Your task to perform on an android device: Add apple airpods to the cart on amazon Image 0: 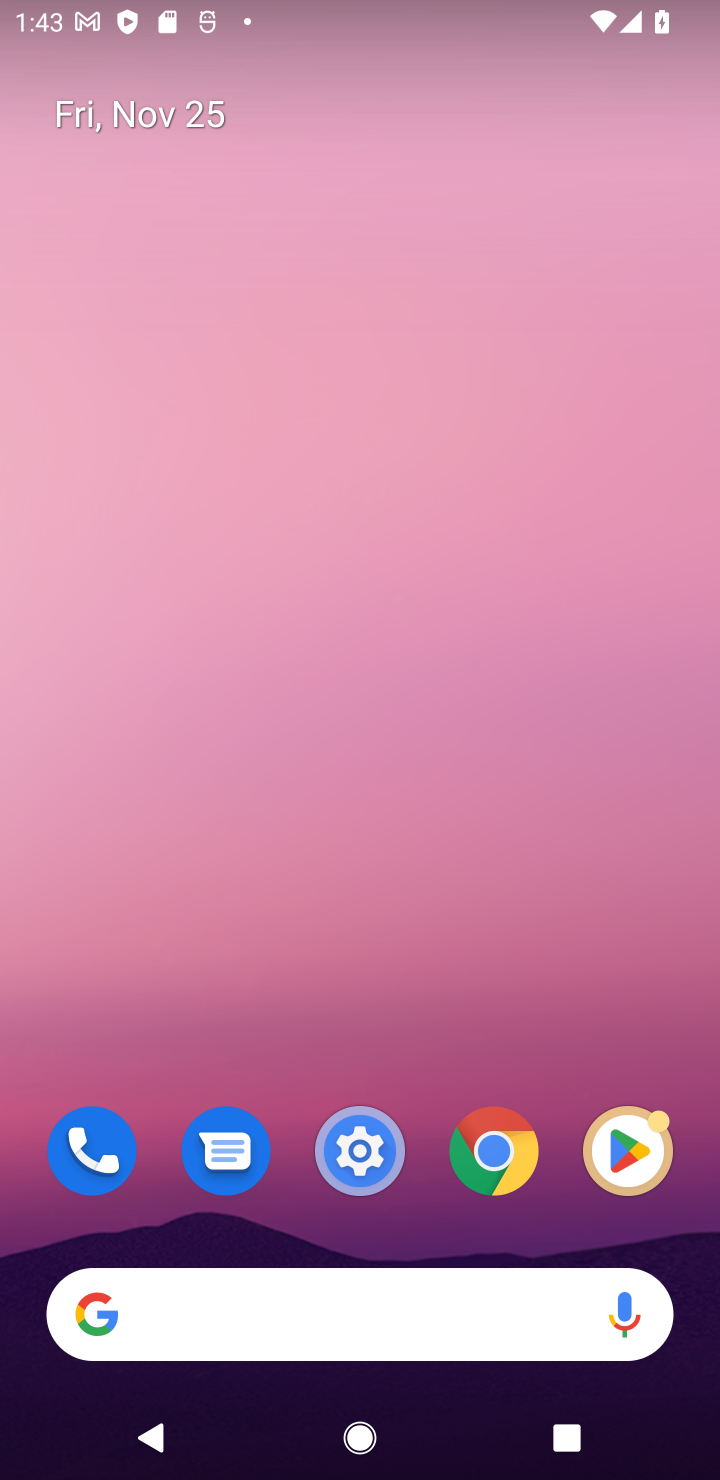
Step 0: click (467, 1307)
Your task to perform on an android device: Add apple airpods to the cart on amazon Image 1: 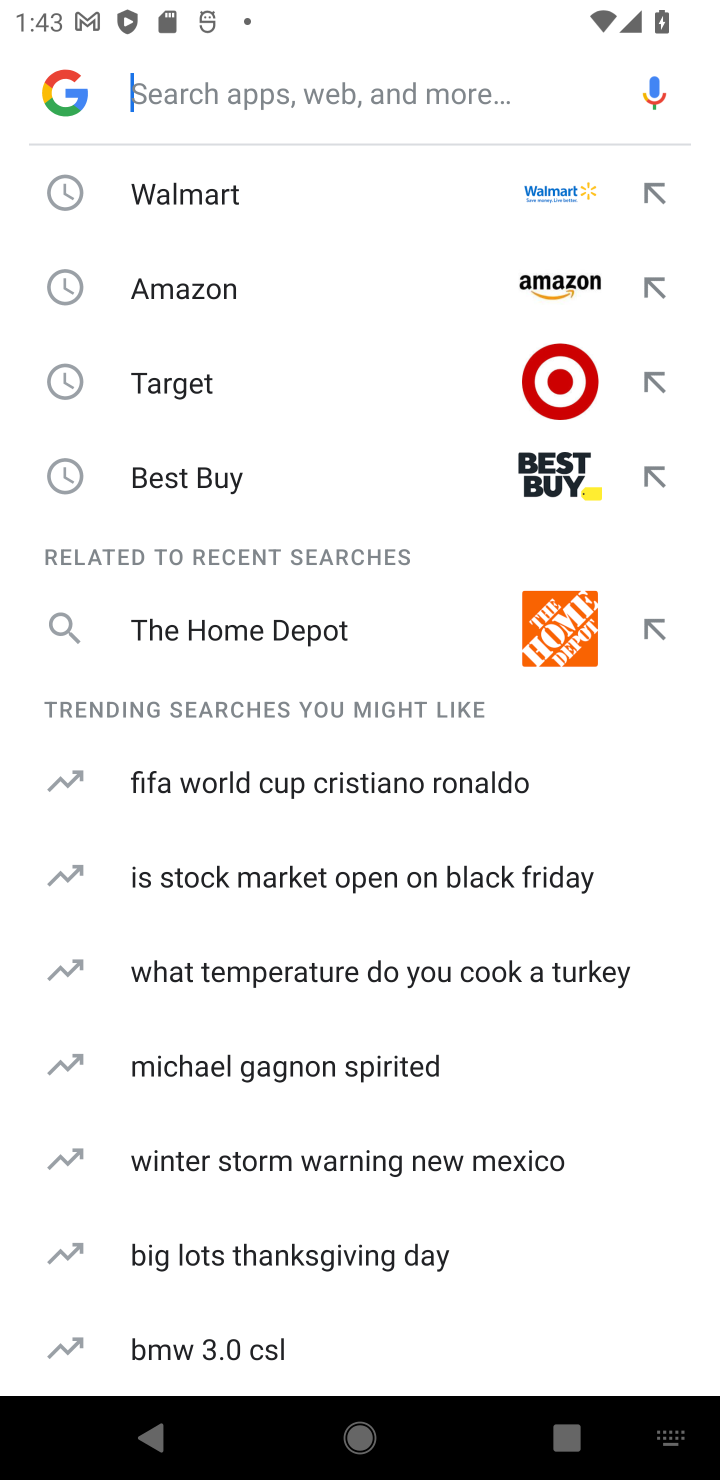
Step 1: type "amazon "
Your task to perform on an android device: Add apple airpods to the cart on amazon Image 2: 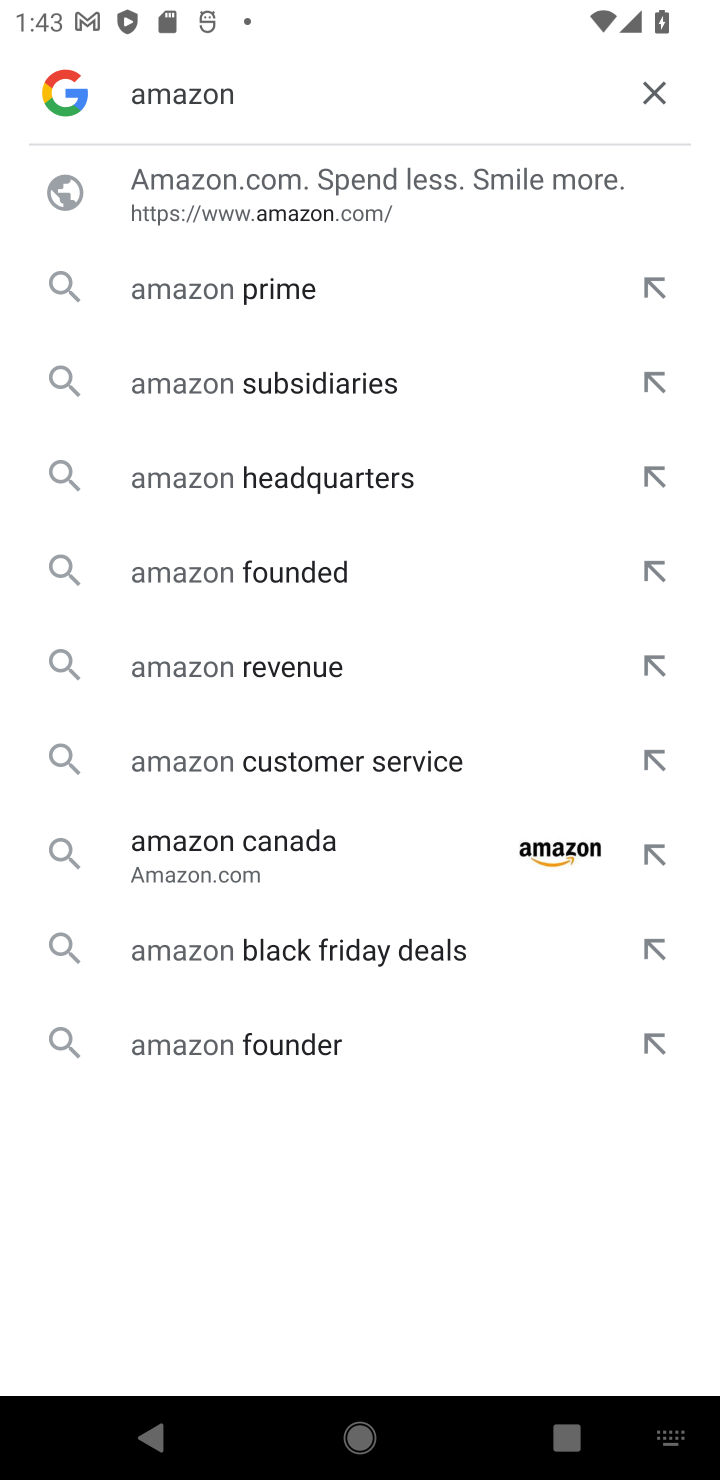
Step 2: click (304, 181)
Your task to perform on an android device: Add apple airpods to the cart on amazon Image 3: 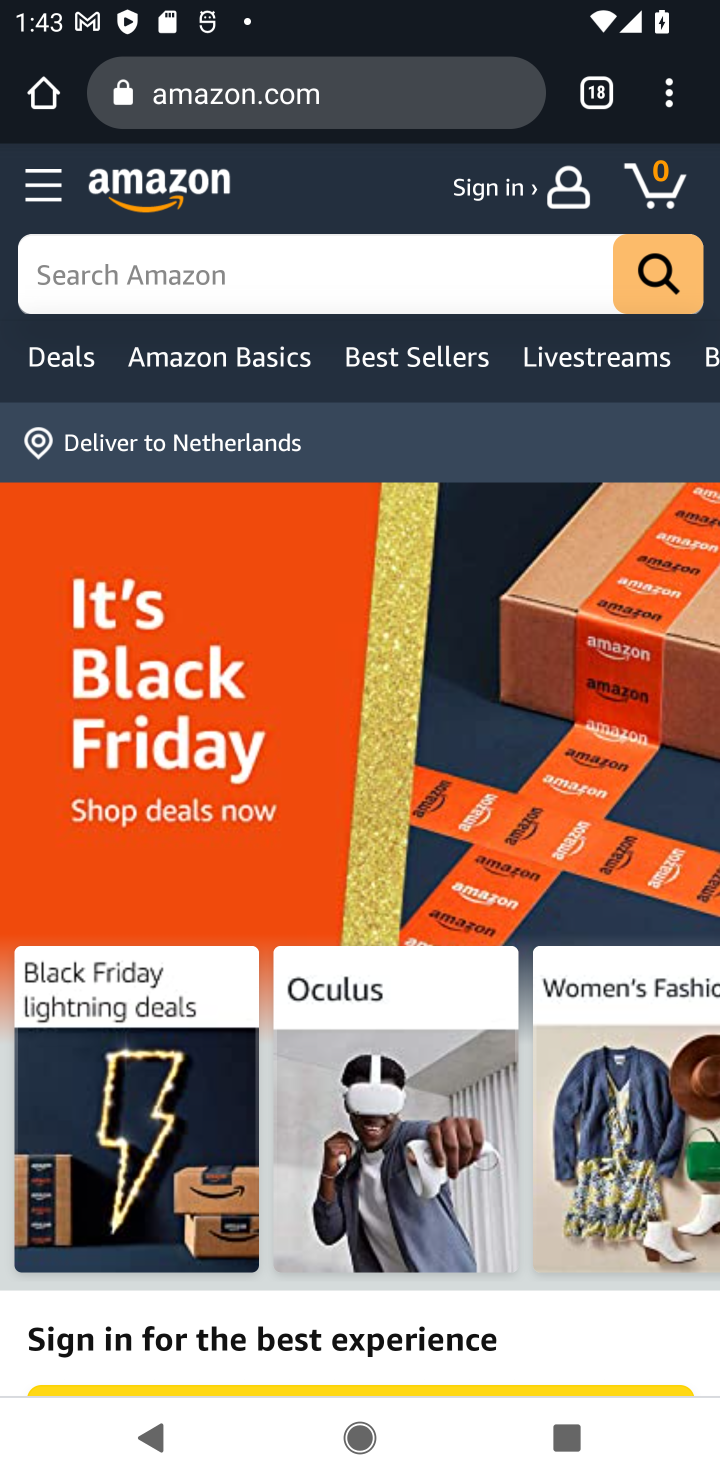
Step 3: click (341, 273)
Your task to perform on an android device: Add apple airpods to the cart on amazon Image 4: 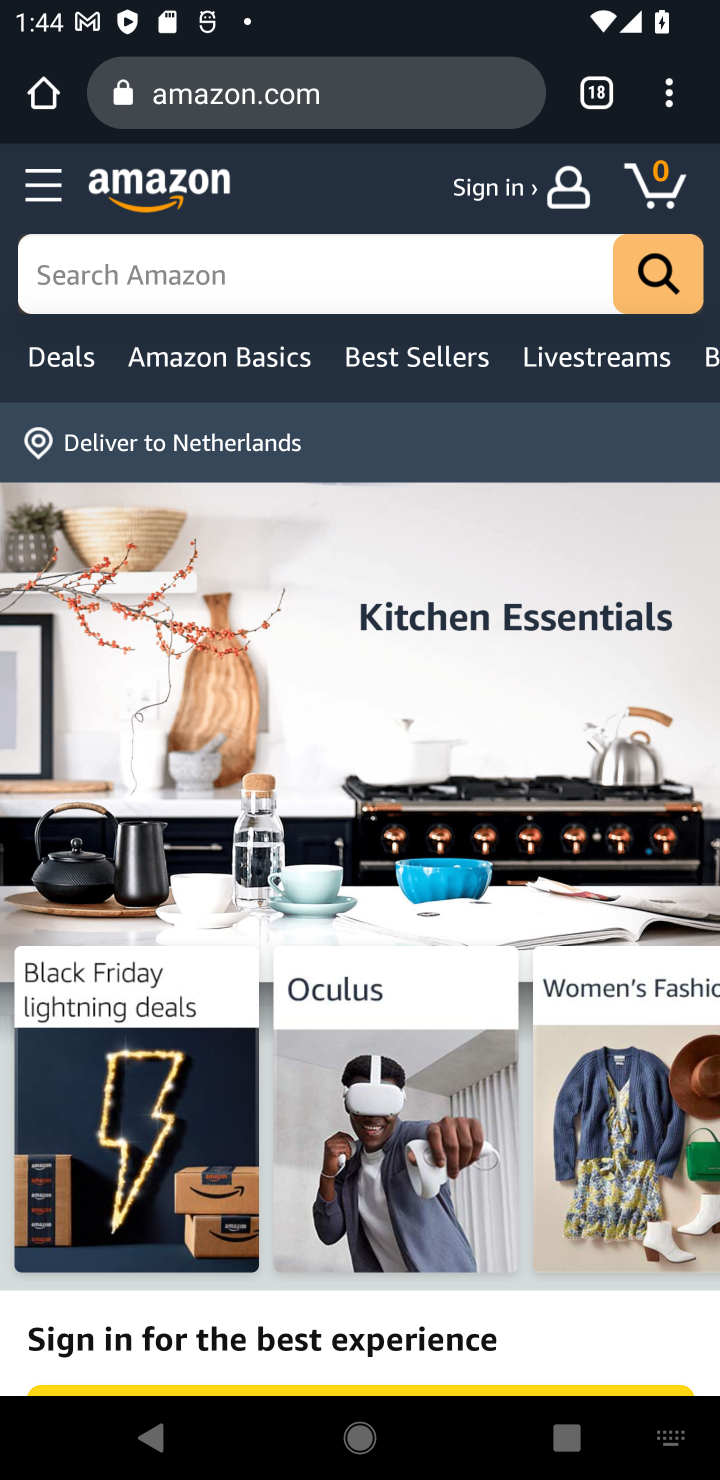
Step 4: type "apple airpod"
Your task to perform on an android device: Add apple airpods to the cart on amazon Image 5: 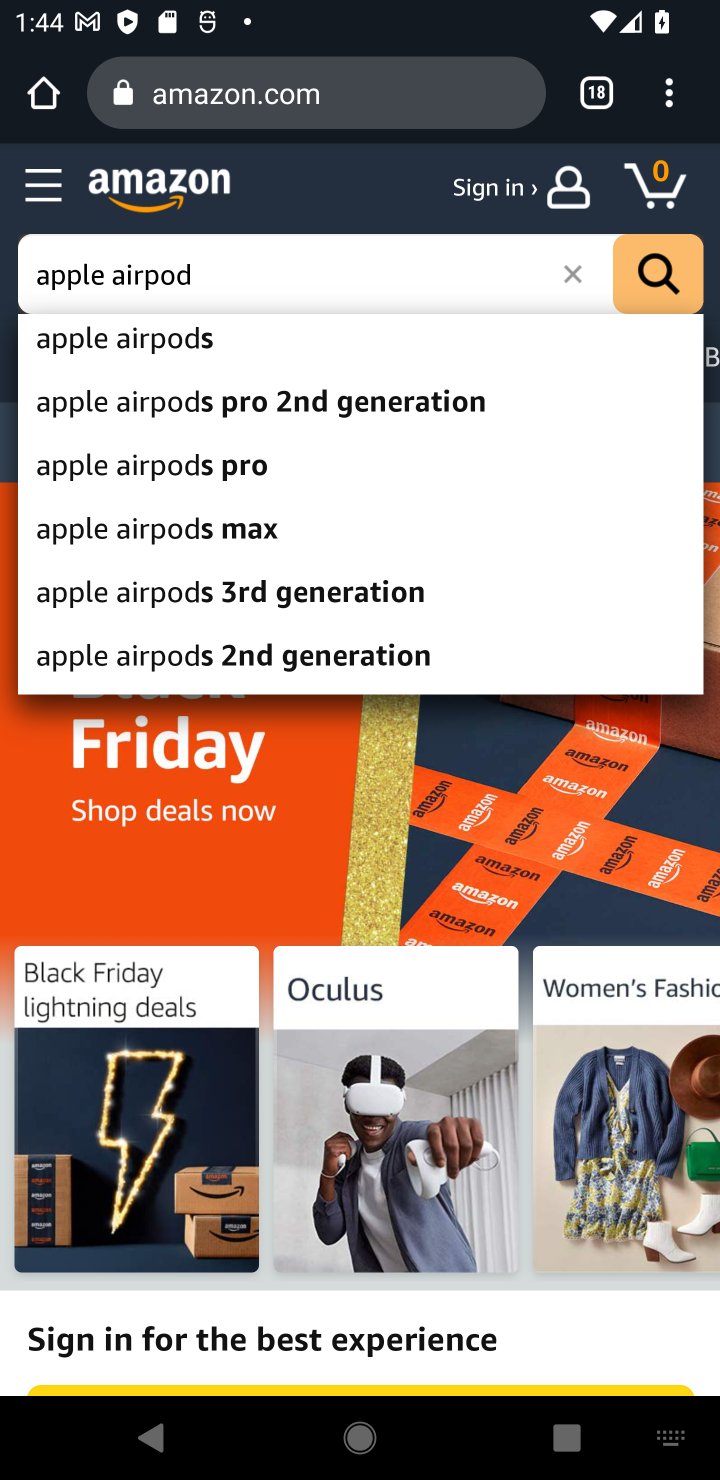
Step 5: click (264, 337)
Your task to perform on an android device: Add apple airpods to the cart on amazon Image 6: 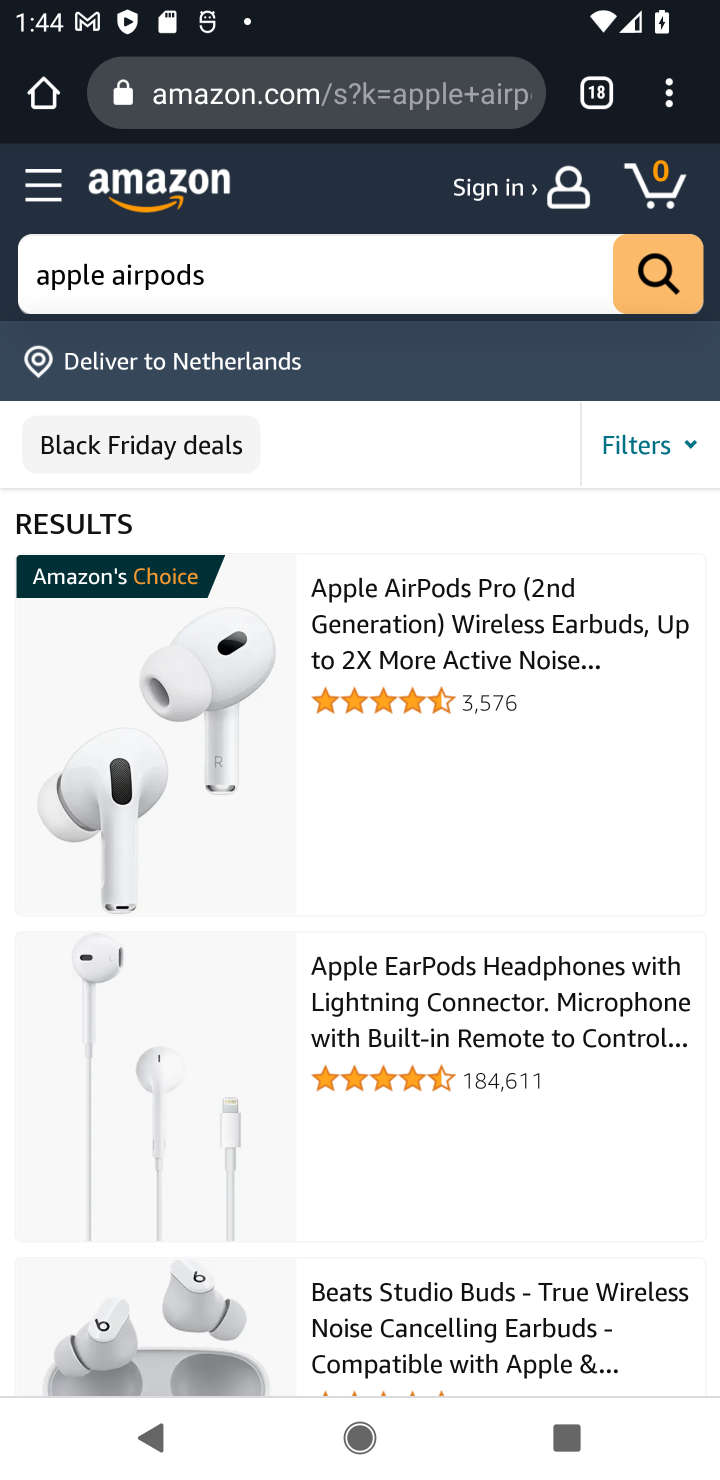
Step 6: click (406, 604)
Your task to perform on an android device: Add apple airpods to the cart on amazon Image 7: 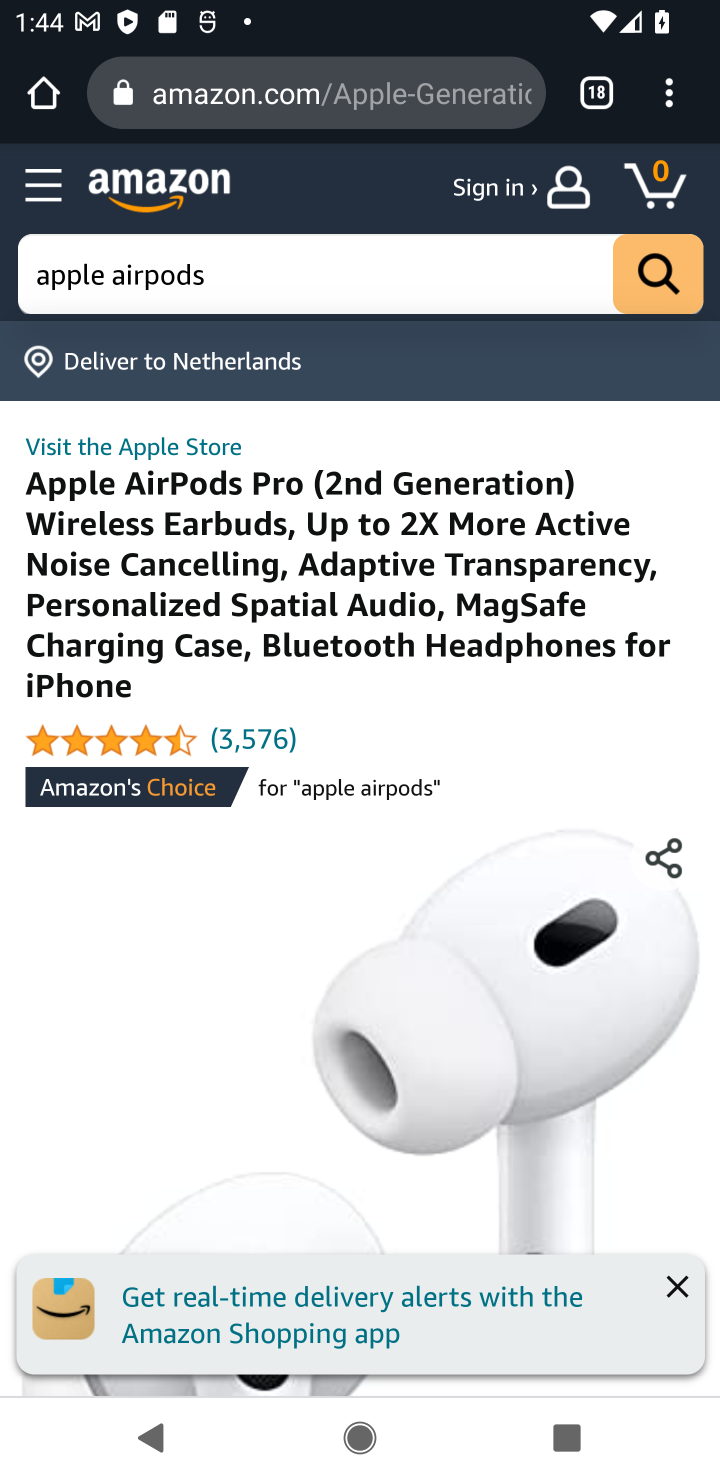
Step 7: task complete